Your task to perform on an android device: turn off location history Image 0: 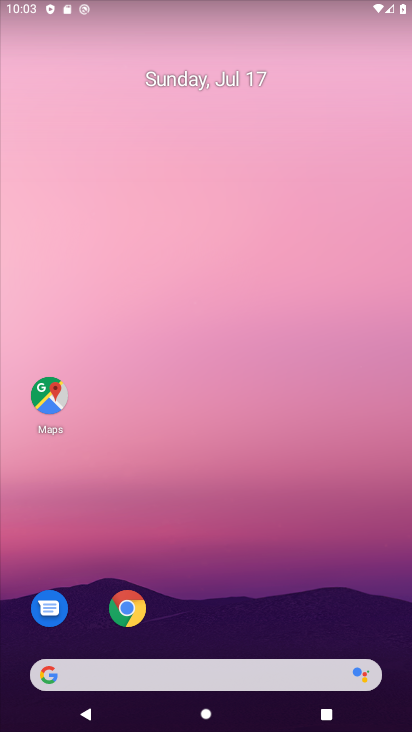
Step 0: drag from (222, 609) to (237, 113)
Your task to perform on an android device: turn off location history Image 1: 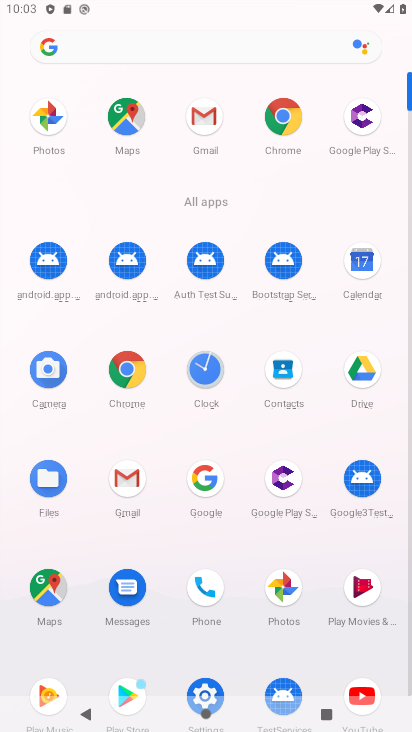
Step 1: click (211, 687)
Your task to perform on an android device: turn off location history Image 2: 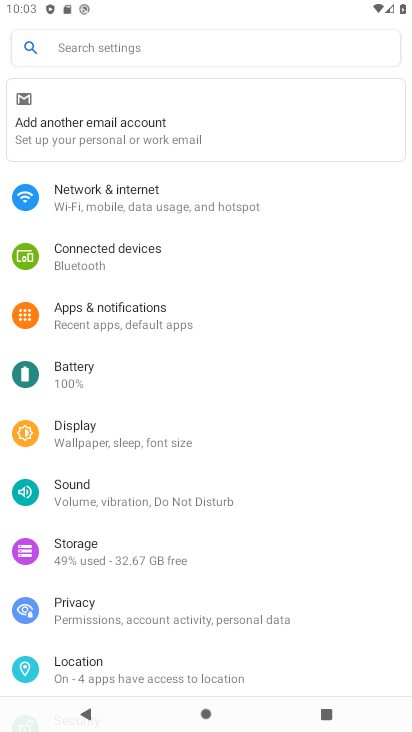
Step 2: click (110, 669)
Your task to perform on an android device: turn off location history Image 3: 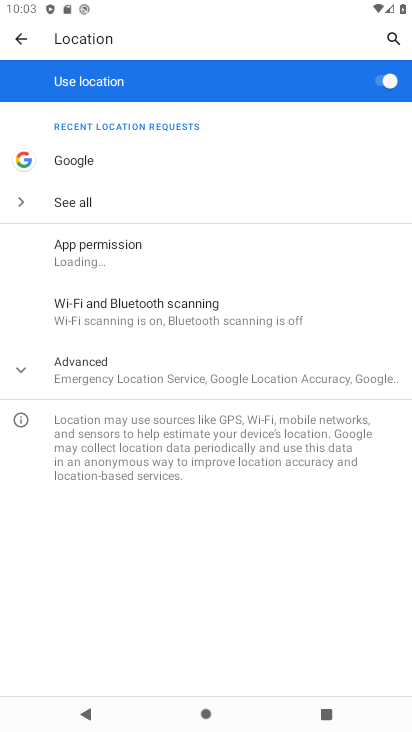
Step 3: click (128, 381)
Your task to perform on an android device: turn off location history Image 4: 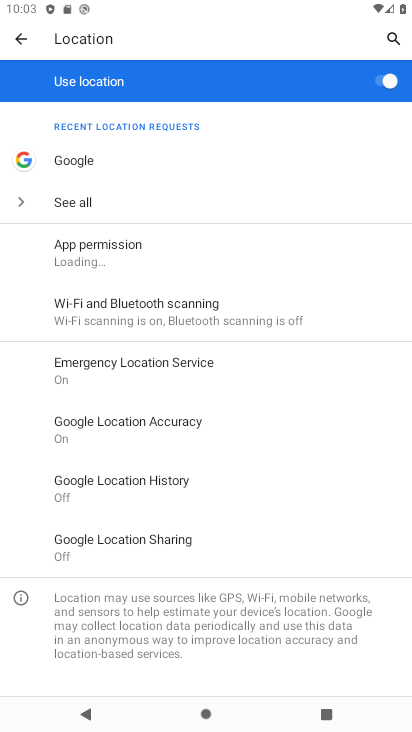
Step 4: click (147, 485)
Your task to perform on an android device: turn off location history Image 5: 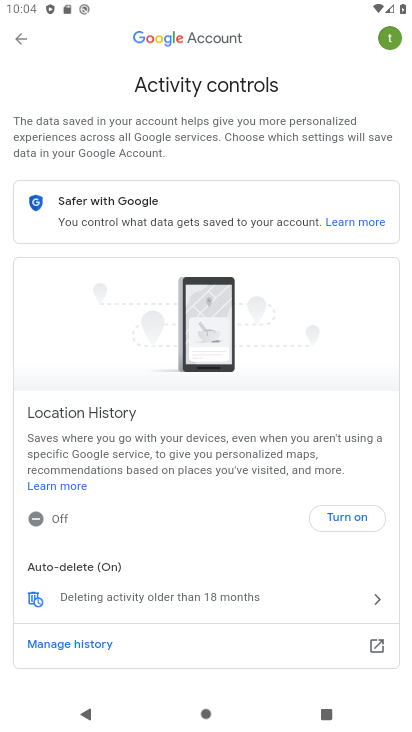
Step 5: task complete